Your task to perform on an android device: Play the last video I watched on Youtube Image 0: 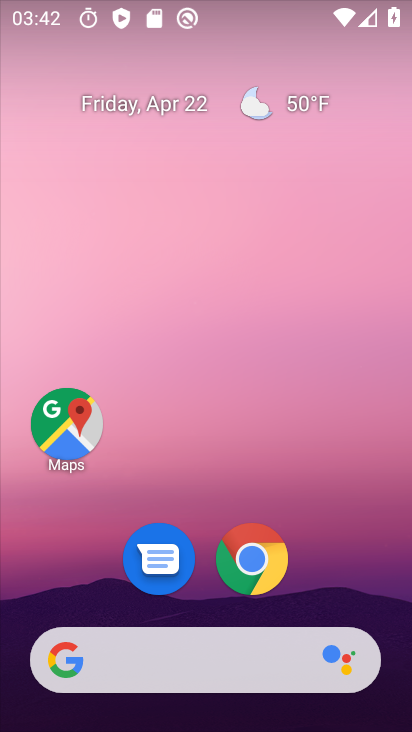
Step 0: drag from (149, 619) to (278, 63)
Your task to perform on an android device: Play the last video I watched on Youtube Image 1: 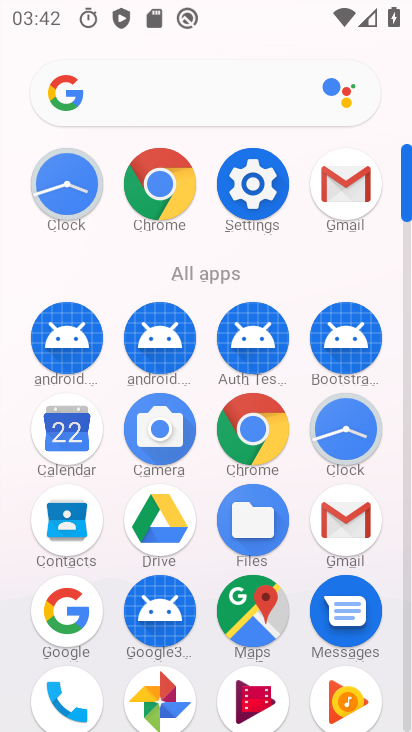
Step 1: drag from (218, 616) to (273, 426)
Your task to perform on an android device: Play the last video I watched on Youtube Image 2: 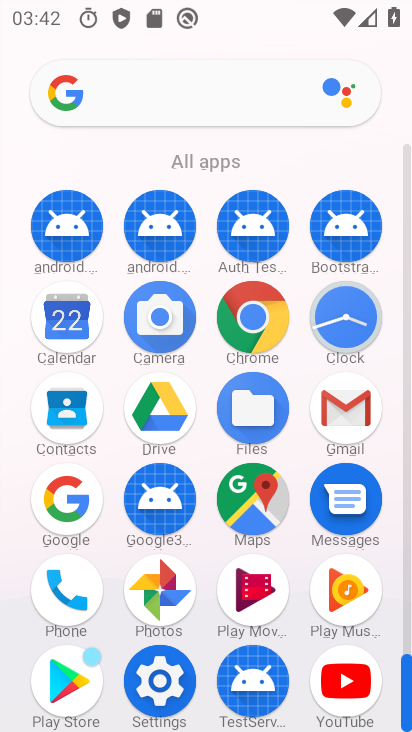
Step 2: click (322, 690)
Your task to perform on an android device: Play the last video I watched on Youtube Image 3: 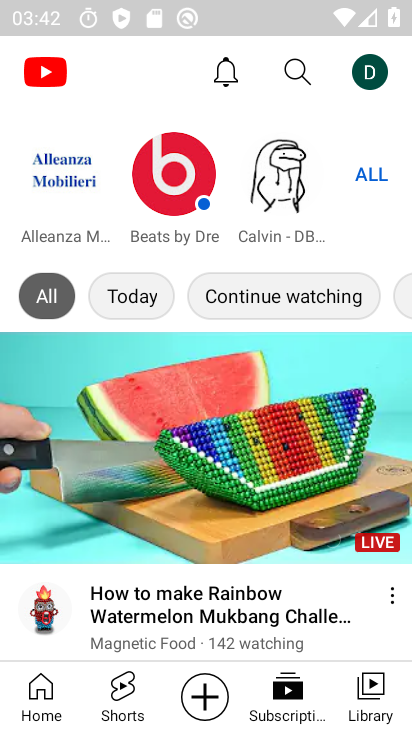
Step 3: click (365, 686)
Your task to perform on an android device: Play the last video I watched on Youtube Image 4: 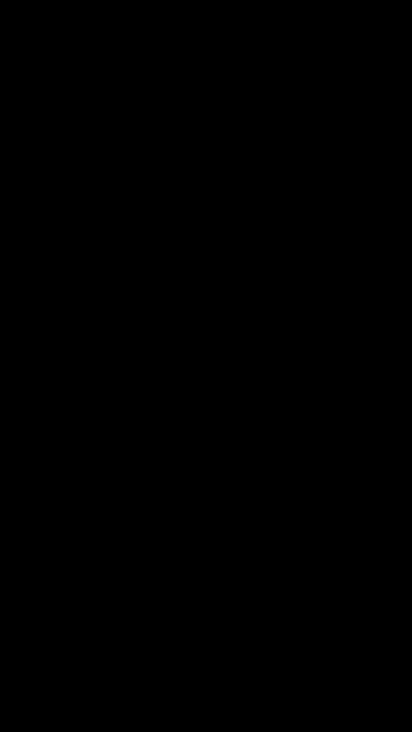
Step 4: click (372, 688)
Your task to perform on an android device: Play the last video I watched on Youtube Image 5: 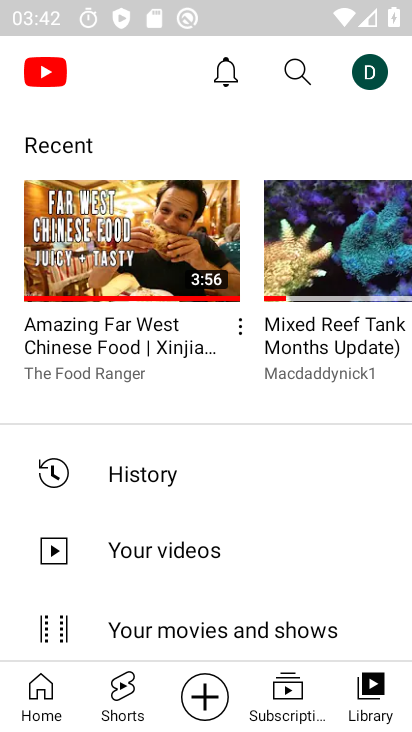
Step 5: click (148, 256)
Your task to perform on an android device: Play the last video I watched on Youtube Image 6: 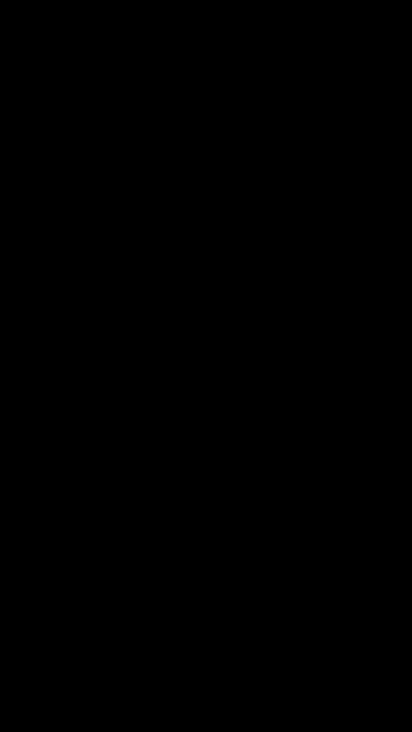
Step 6: task complete